Your task to perform on an android device: open app "Adobe Acrobat Reader" Image 0: 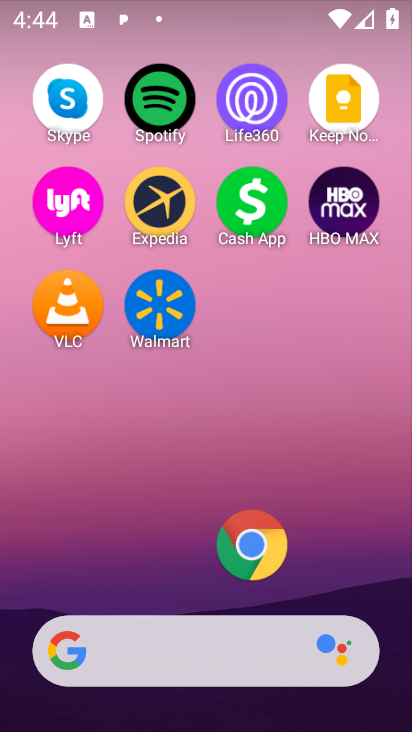
Step 0: press home button
Your task to perform on an android device: open app "Adobe Acrobat Reader" Image 1: 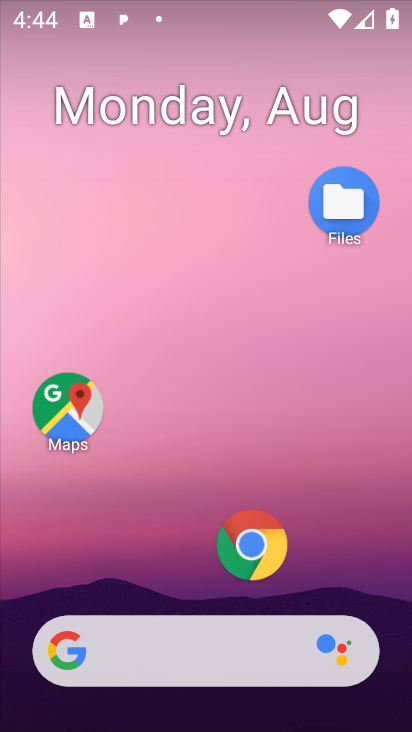
Step 1: drag from (122, 581) to (276, 38)
Your task to perform on an android device: open app "Adobe Acrobat Reader" Image 2: 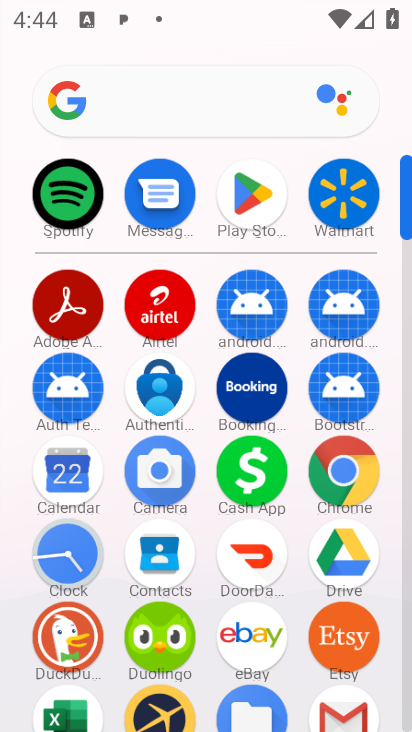
Step 2: click (249, 208)
Your task to perform on an android device: open app "Adobe Acrobat Reader" Image 3: 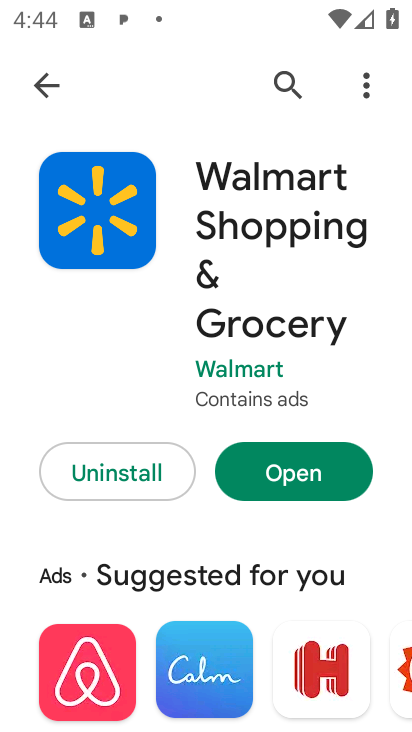
Step 3: click (289, 83)
Your task to perform on an android device: open app "Adobe Acrobat Reader" Image 4: 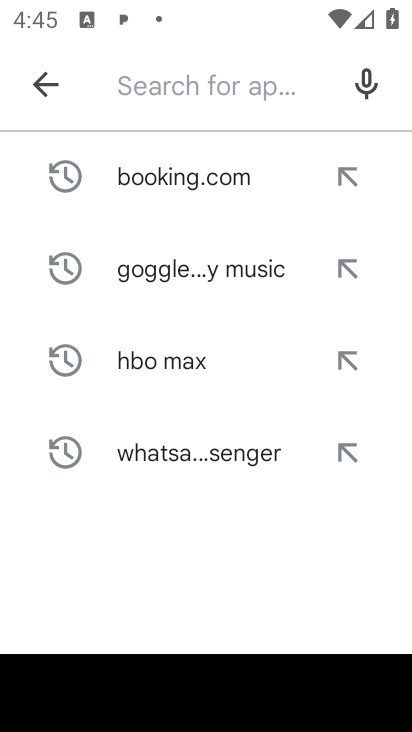
Step 4: click (190, 85)
Your task to perform on an android device: open app "Adobe Acrobat Reader" Image 5: 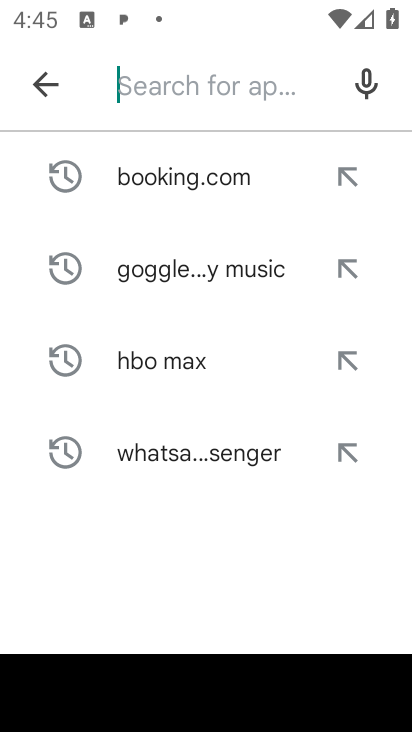
Step 5: type "Adobe Acrobat Reader"
Your task to perform on an android device: open app "Adobe Acrobat Reader" Image 6: 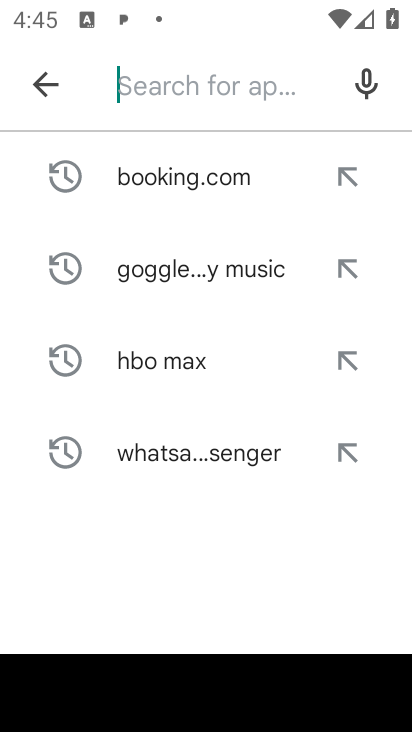
Step 6: click (167, 555)
Your task to perform on an android device: open app "Adobe Acrobat Reader" Image 7: 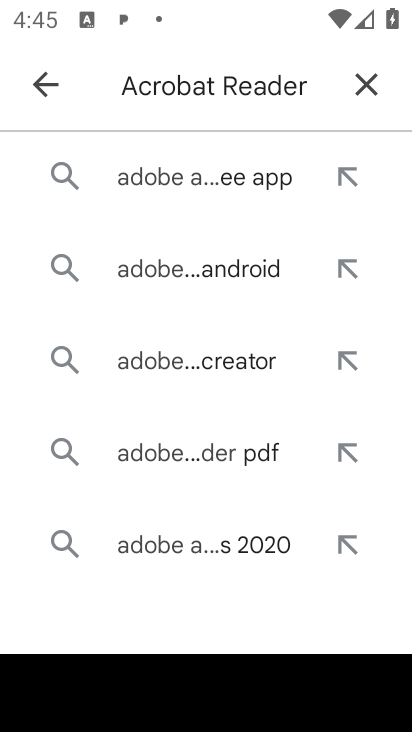
Step 7: click (207, 176)
Your task to perform on an android device: open app "Adobe Acrobat Reader" Image 8: 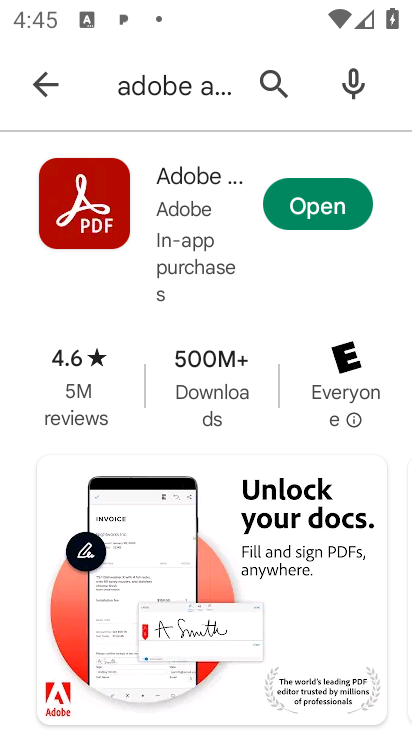
Step 8: click (343, 217)
Your task to perform on an android device: open app "Adobe Acrobat Reader" Image 9: 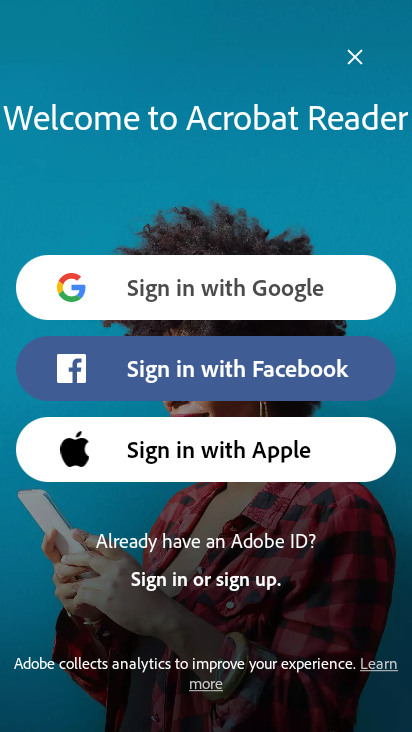
Step 9: task complete